Your task to perform on an android device: Play the last video I watched on Youtube Image 0: 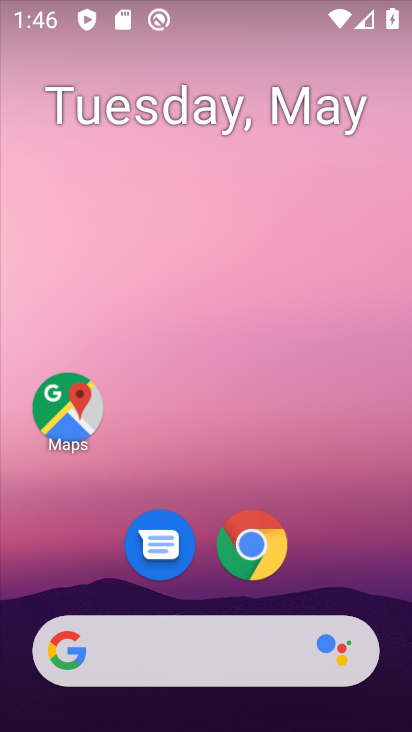
Step 0: drag from (274, 377) to (202, 10)
Your task to perform on an android device: Play the last video I watched on Youtube Image 1: 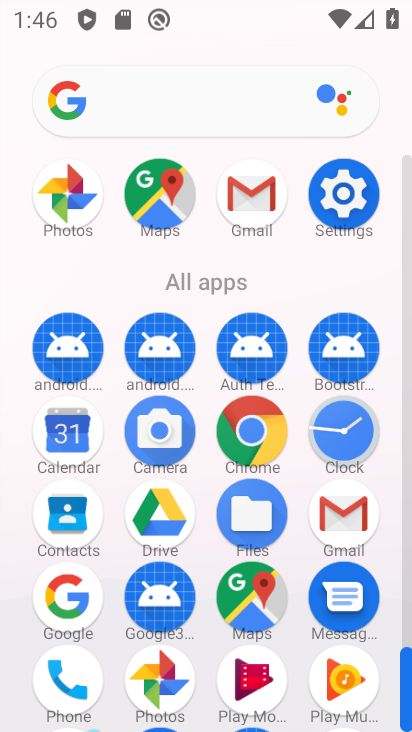
Step 1: drag from (8, 480) to (6, 240)
Your task to perform on an android device: Play the last video I watched on Youtube Image 2: 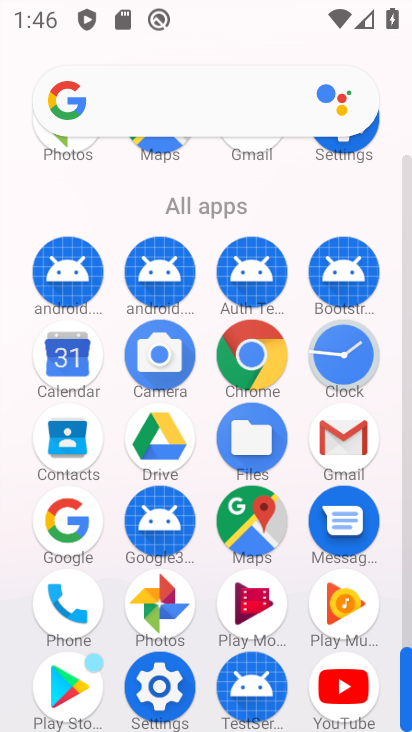
Step 2: click (340, 676)
Your task to perform on an android device: Play the last video I watched on Youtube Image 3: 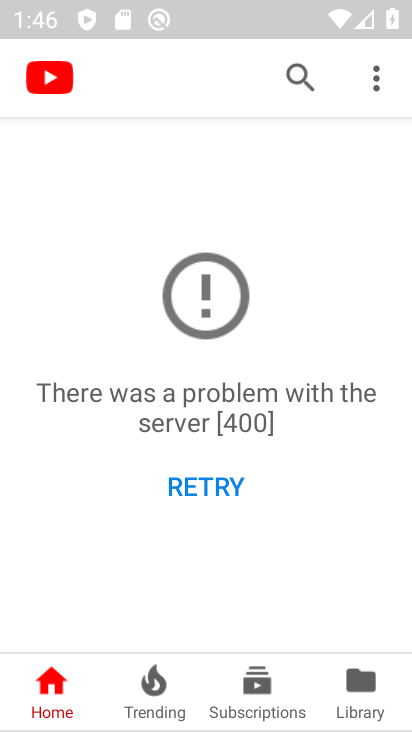
Step 3: click (358, 692)
Your task to perform on an android device: Play the last video I watched on Youtube Image 4: 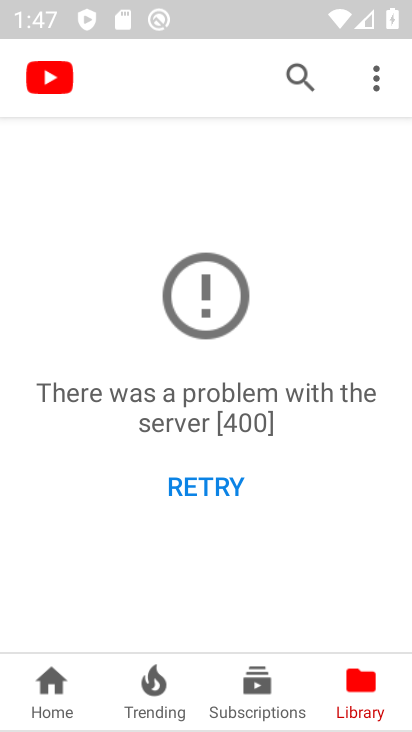
Step 4: task complete